Your task to perform on an android device: turn on javascript in the chrome app Image 0: 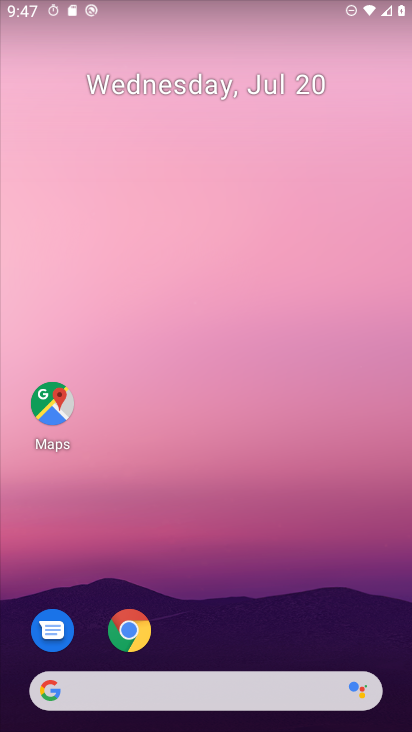
Step 0: drag from (237, 662) to (236, 68)
Your task to perform on an android device: turn on javascript in the chrome app Image 1: 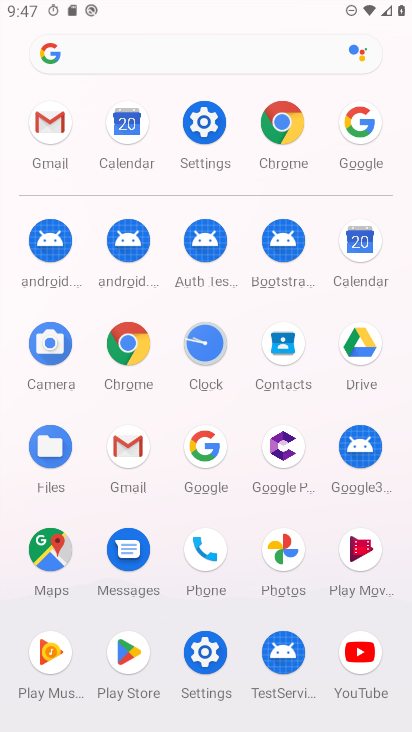
Step 1: click (292, 151)
Your task to perform on an android device: turn on javascript in the chrome app Image 2: 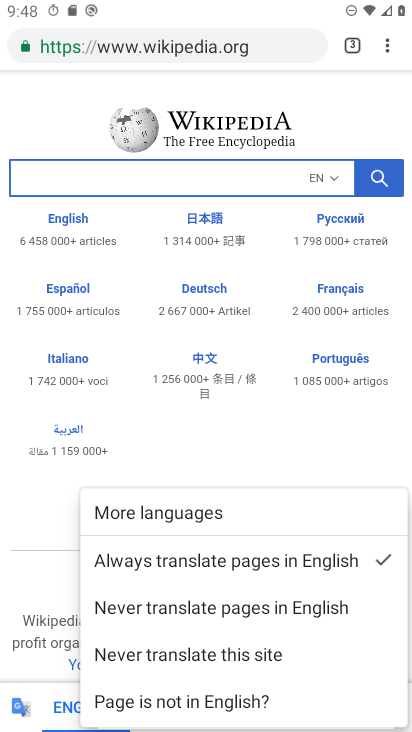
Step 2: click (382, 46)
Your task to perform on an android device: turn on javascript in the chrome app Image 3: 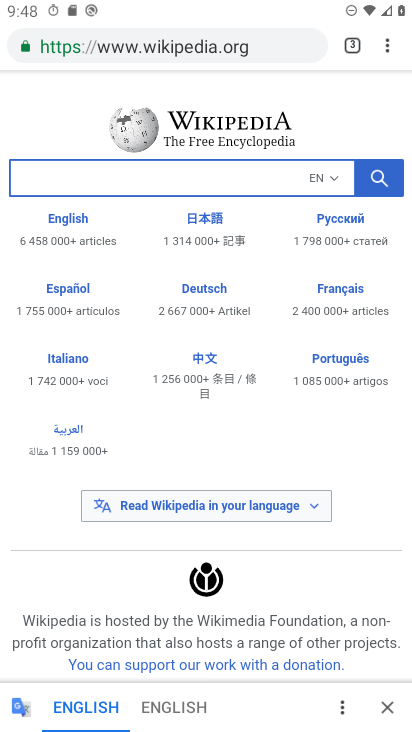
Step 3: click (388, 52)
Your task to perform on an android device: turn on javascript in the chrome app Image 4: 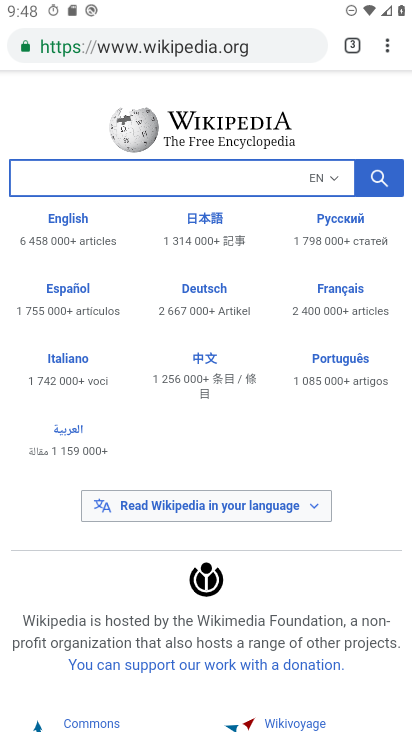
Step 4: click (389, 53)
Your task to perform on an android device: turn on javascript in the chrome app Image 5: 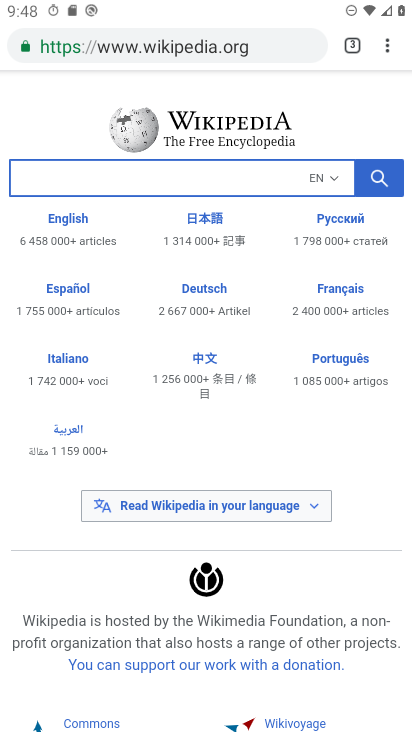
Step 5: click (388, 54)
Your task to perform on an android device: turn on javascript in the chrome app Image 6: 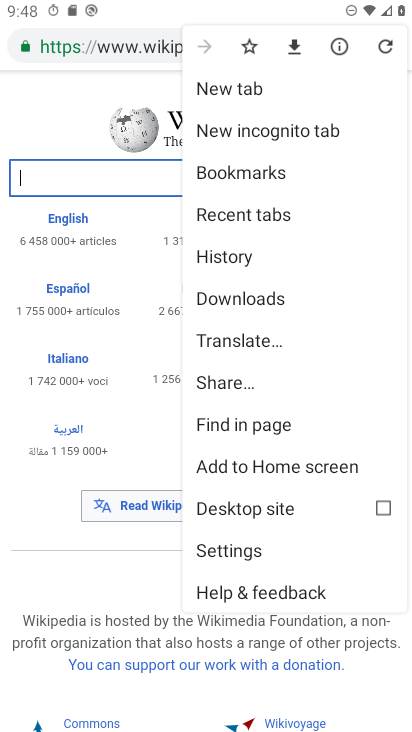
Step 6: click (244, 555)
Your task to perform on an android device: turn on javascript in the chrome app Image 7: 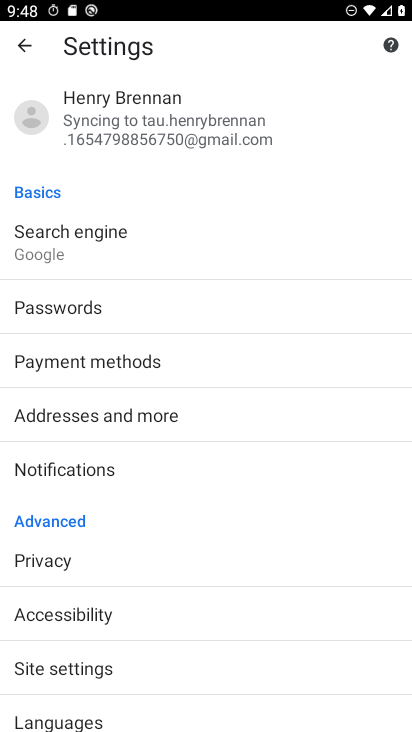
Step 7: click (66, 668)
Your task to perform on an android device: turn on javascript in the chrome app Image 8: 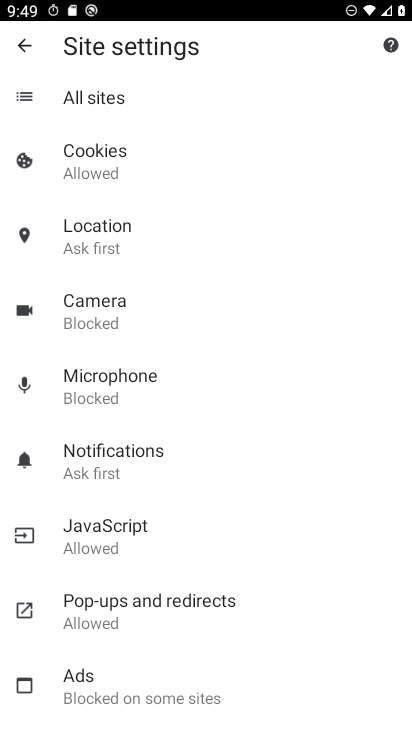
Step 8: click (137, 538)
Your task to perform on an android device: turn on javascript in the chrome app Image 9: 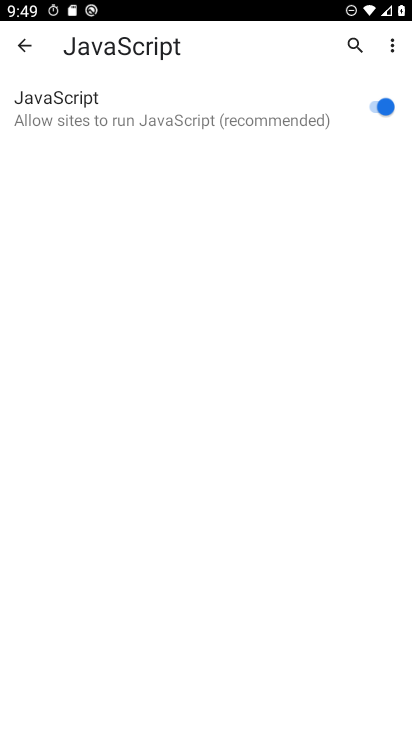
Step 9: task complete